Your task to perform on an android device: Show the shopping cart on target.com. Search for duracell triple a on target.com, select the first entry, and add it to the cart. Image 0: 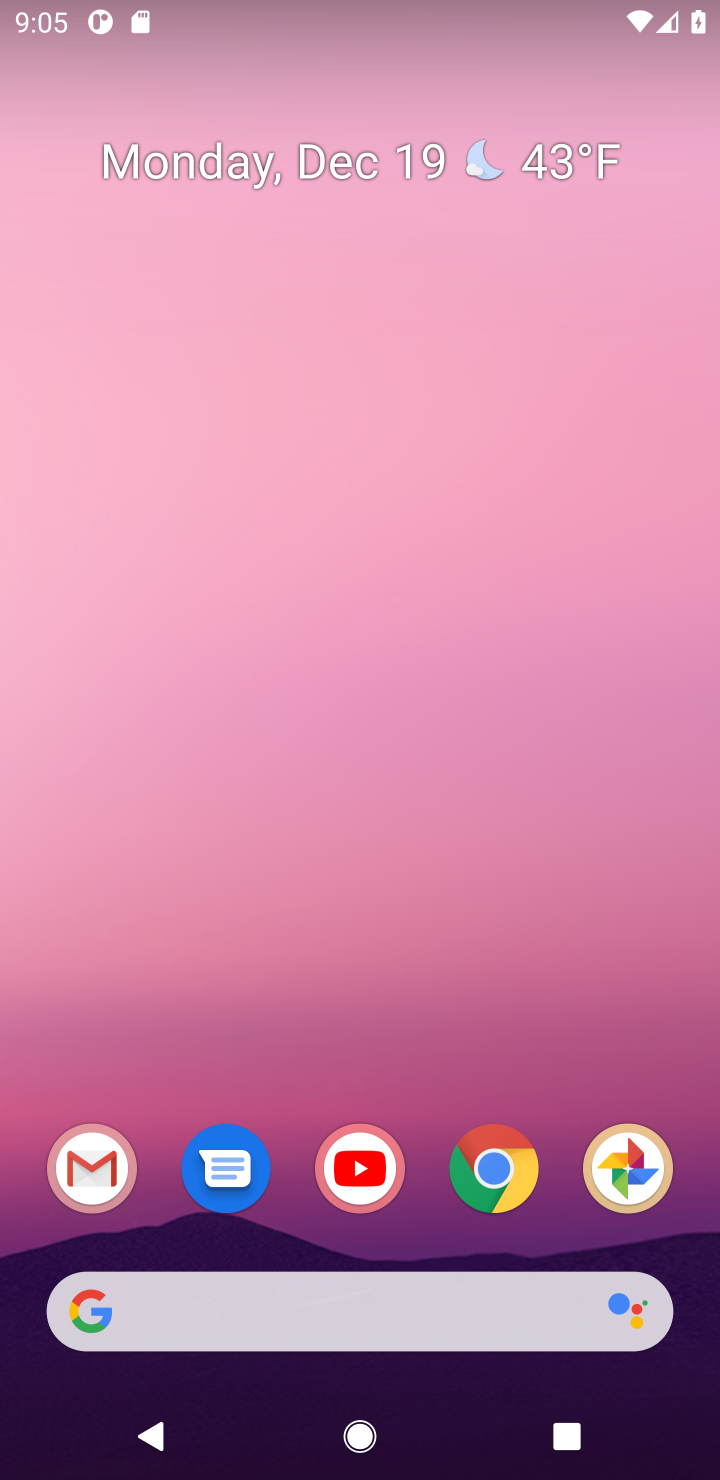
Step 0: click (493, 1164)
Your task to perform on an android device: Show the shopping cart on target.com. Search for duracell triple a on target.com, select the first entry, and add it to the cart. Image 1: 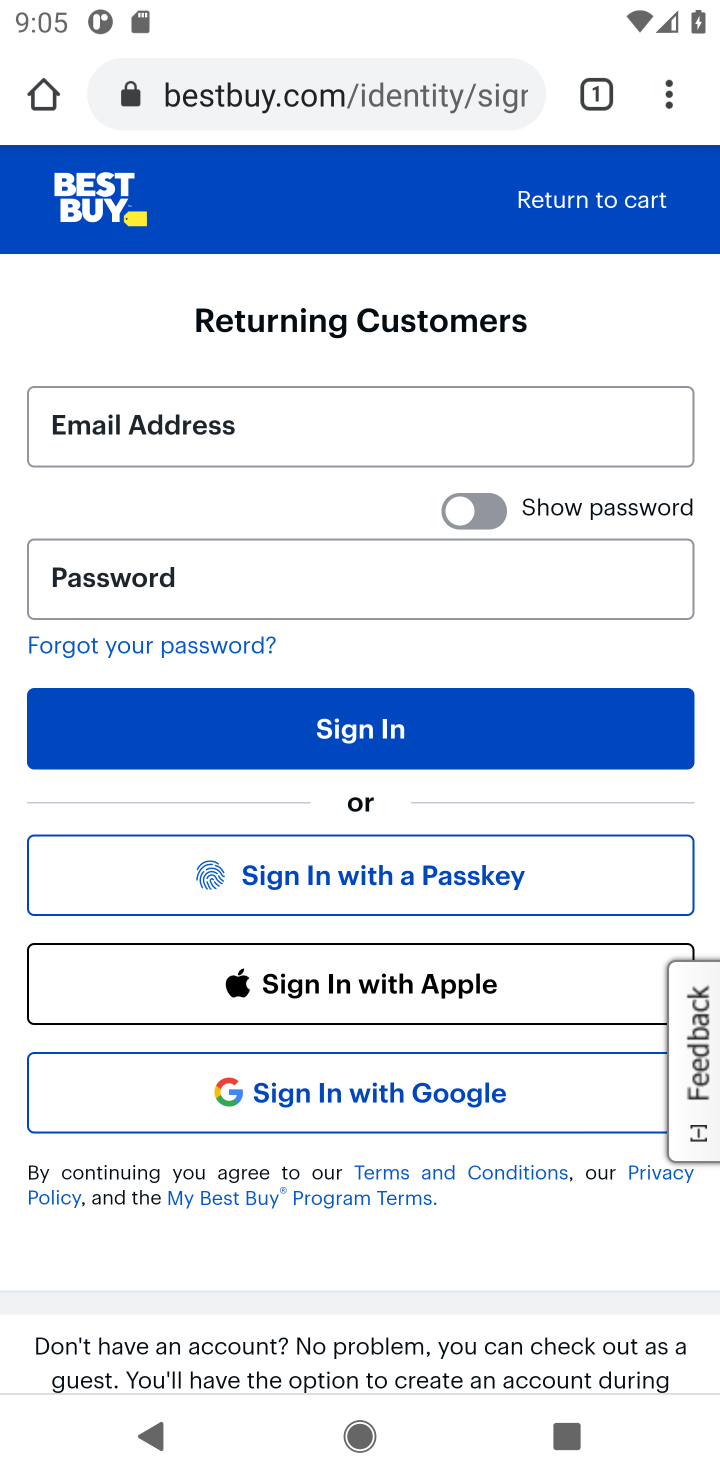
Step 1: click (284, 92)
Your task to perform on an android device: Show the shopping cart on target.com. Search for duracell triple a on target.com, select the first entry, and add it to the cart. Image 2: 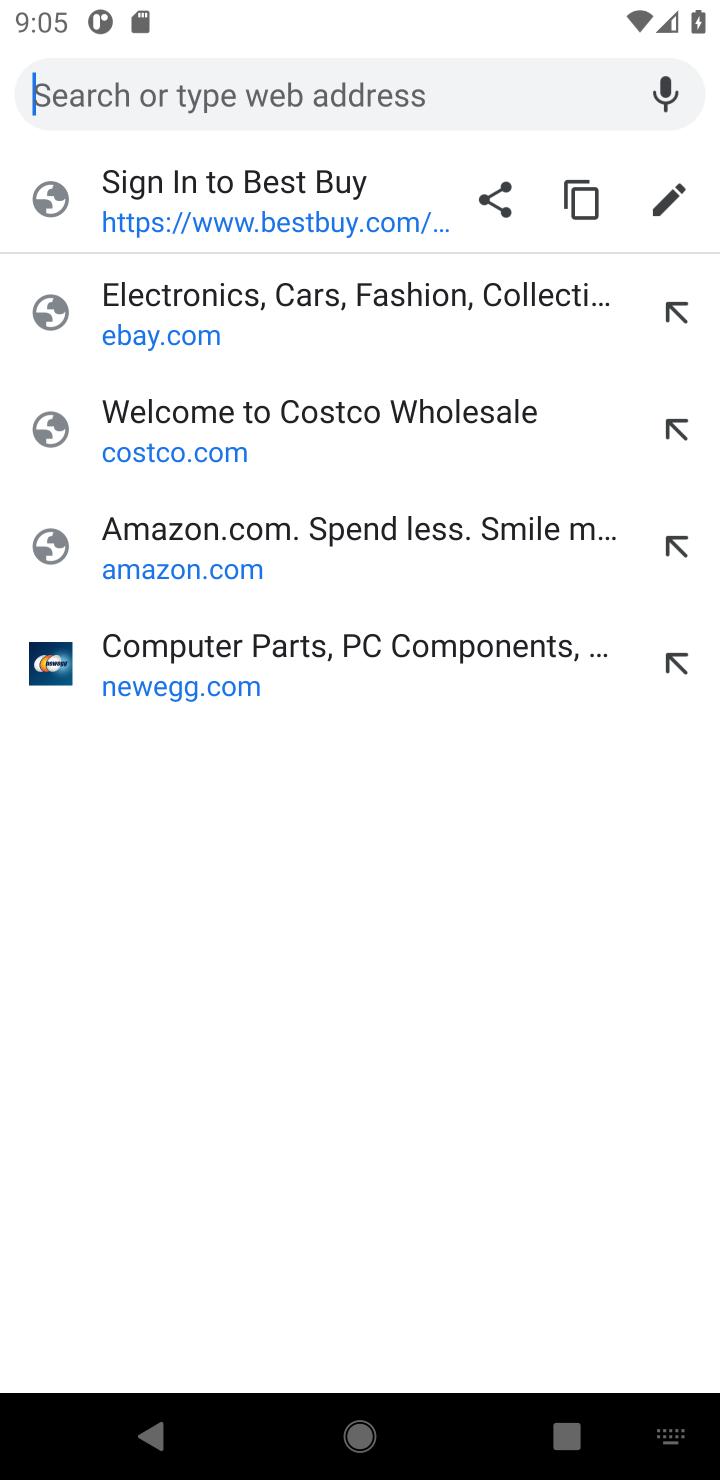
Step 2: type "target.com"
Your task to perform on an android device: Show the shopping cart on target.com. Search for duracell triple a on target.com, select the first entry, and add it to the cart. Image 3: 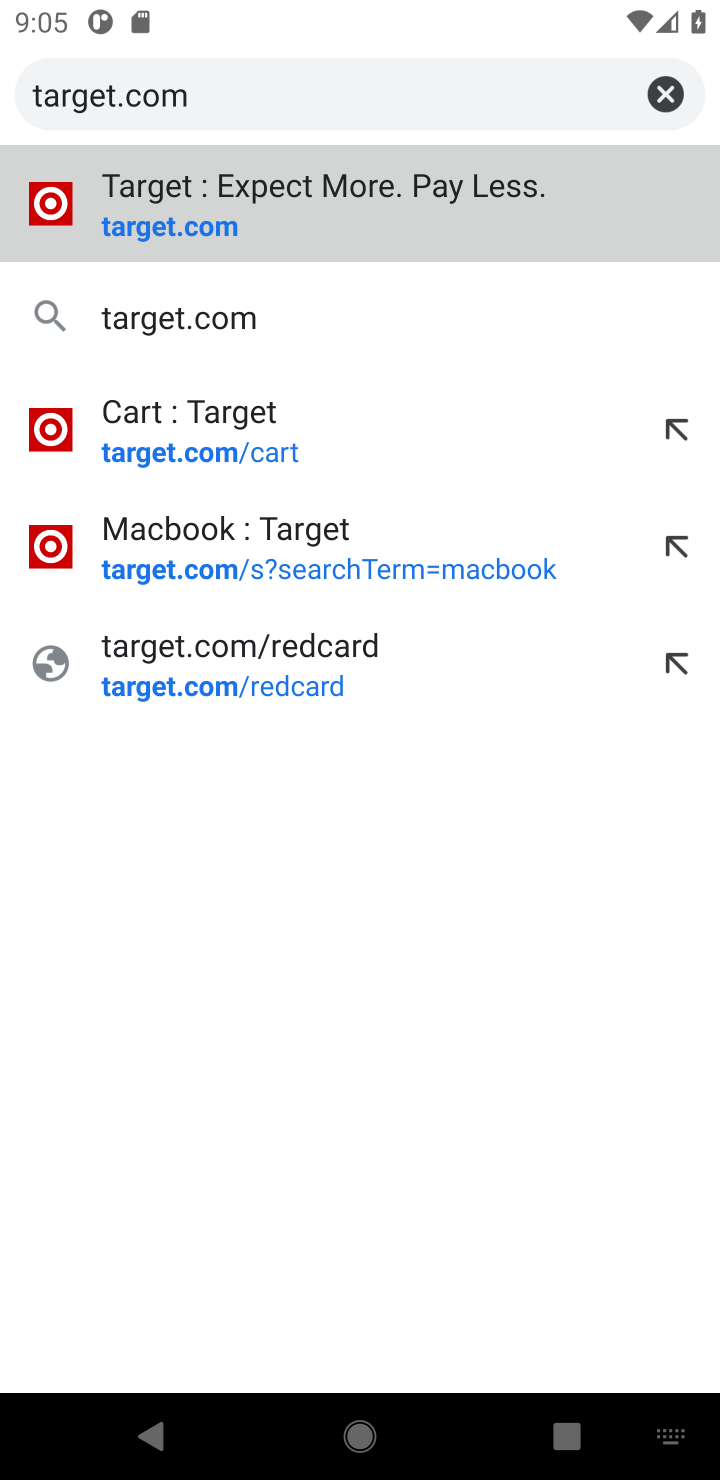
Step 3: click (128, 227)
Your task to perform on an android device: Show the shopping cart on target.com. Search for duracell triple a on target.com, select the first entry, and add it to the cart. Image 4: 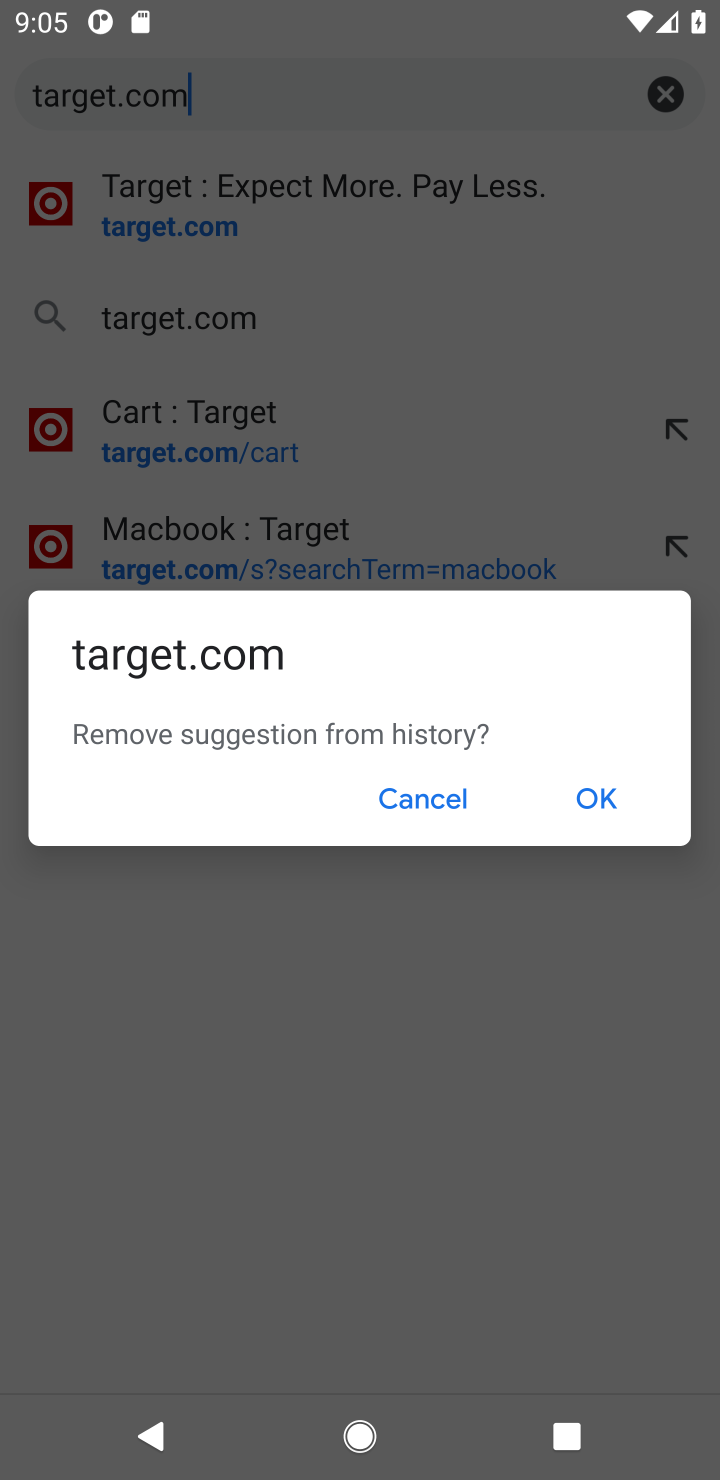
Step 4: click (458, 811)
Your task to perform on an android device: Show the shopping cart on target.com. Search for duracell triple a on target.com, select the first entry, and add it to the cart. Image 5: 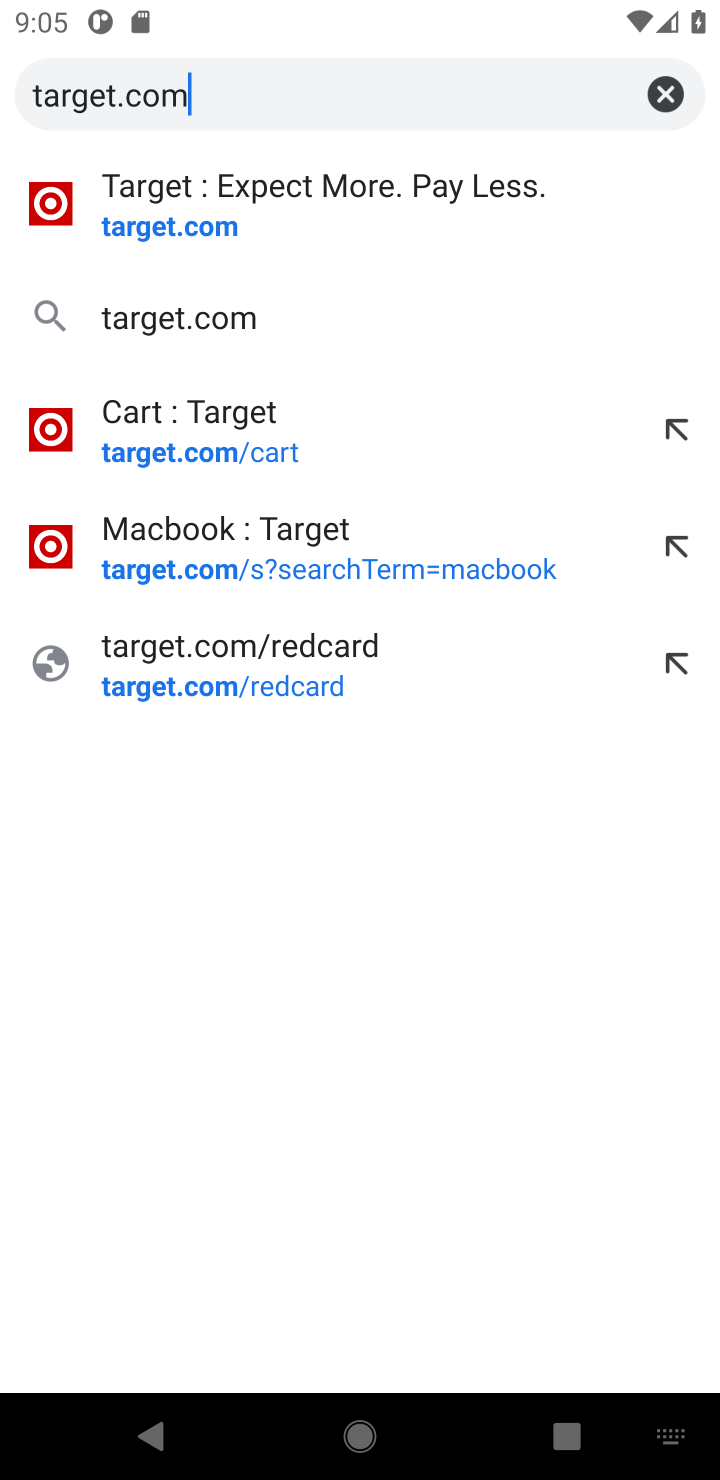
Step 5: click (181, 220)
Your task to perform on an android device: Show the shopping cart on target.com. Search for duracell triple a on target.com, select the first entry, and add it to the cart. Image 6: 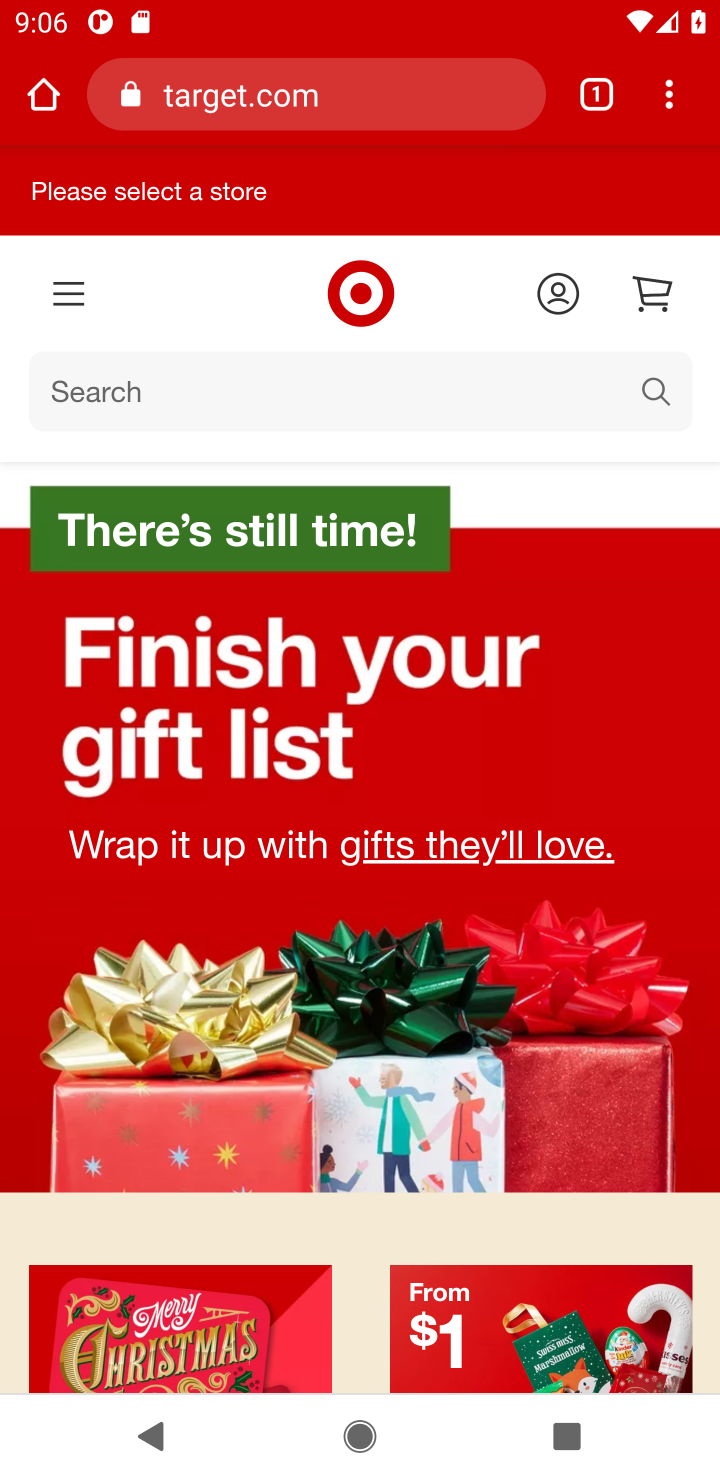
Step 6: click (664, 290)
Your task to perform on an android device: Show the shopping cart on target.com. Search for duracell triple a on target.com, select the first entry, and add it to the cart. Image 7: 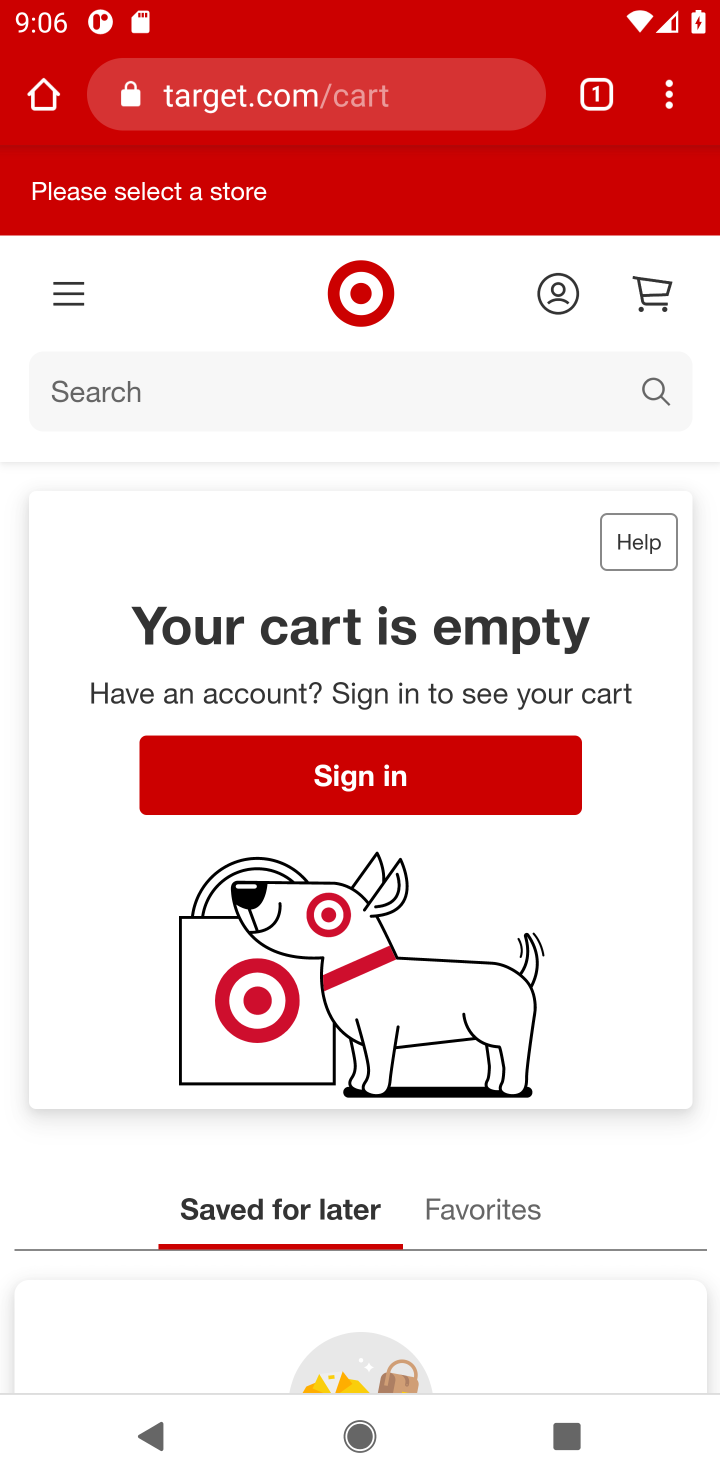
Step 7: click (76, 383)
Your task to perform on an android device: Show the shopping cart on target.com. Search for duracell triple a on target.com, select the first entry, and add it to the cart. Image 8: 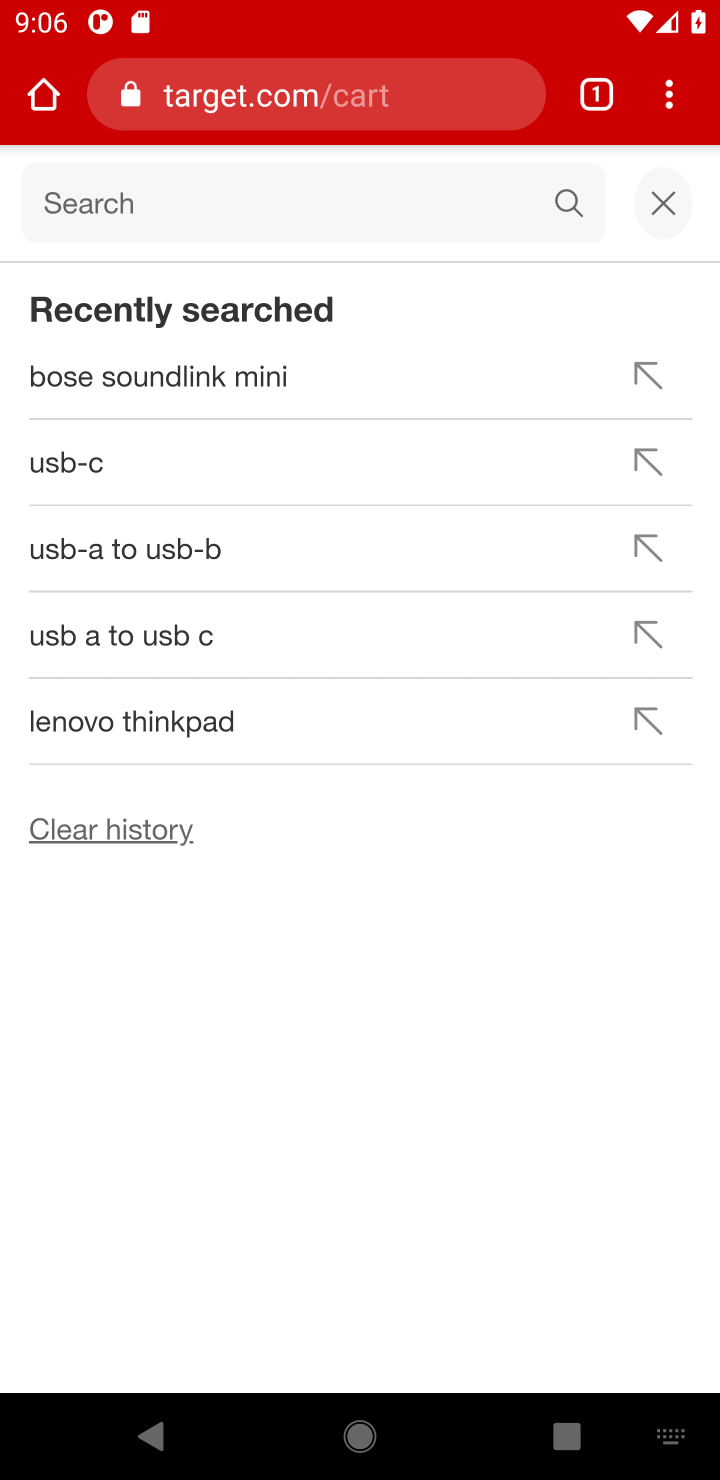
Step 8: type "duracell triple a"
Your task to perform on an android device: Show the shopping cart on target.com. Search for duracell triple a on target.com, select the first entry, and add it to the cart. Image 9: 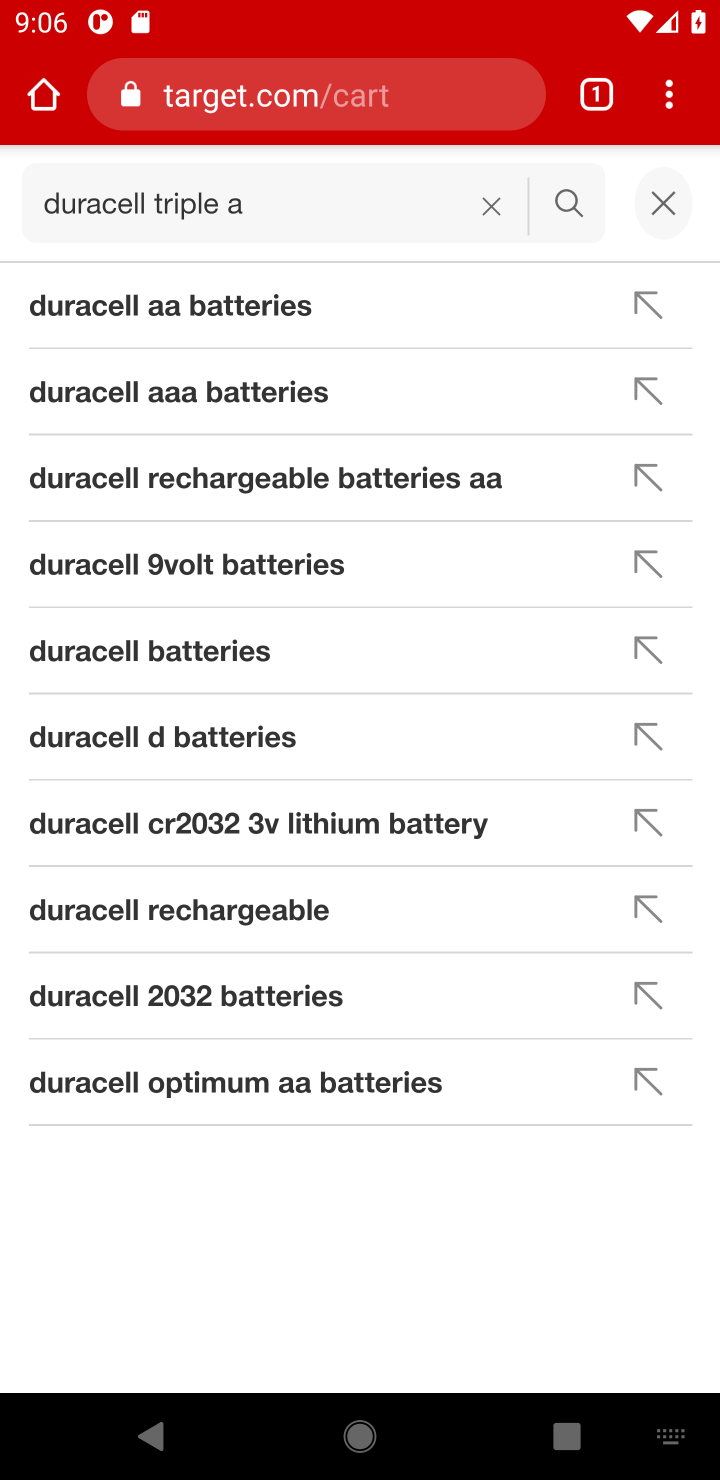
Step 9: click (573, 206)
Your task to perform on an android device: Show the shopping cart on target.com. Search for duracell triple a on target.com, select the first entry, and add it to the cart. Image 10: 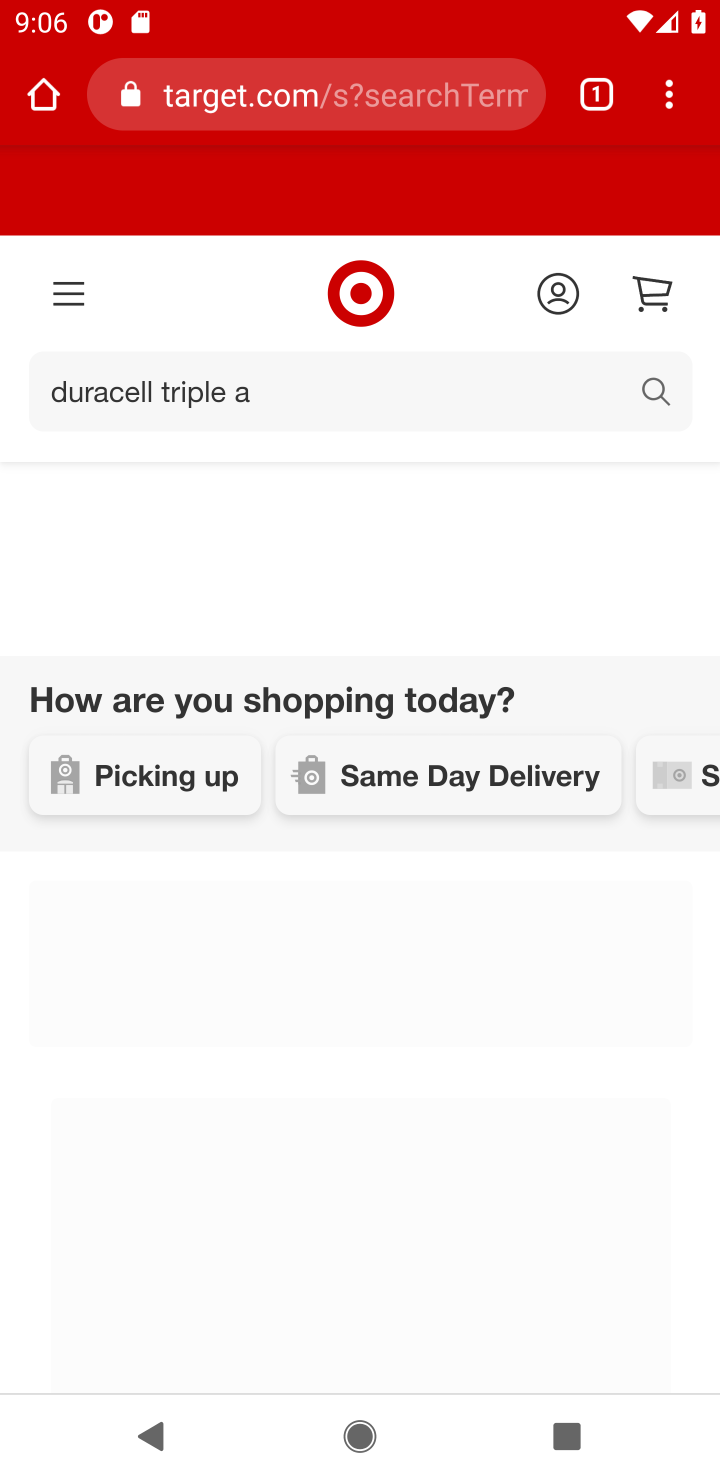
Step 10: drag from (240, 879) to (288, 487)
Your task to perform on an android device: Show the shopping cart on target.com. Search for duracell triple a on target.com, select the first entry, and add it to the cart. Image 11: 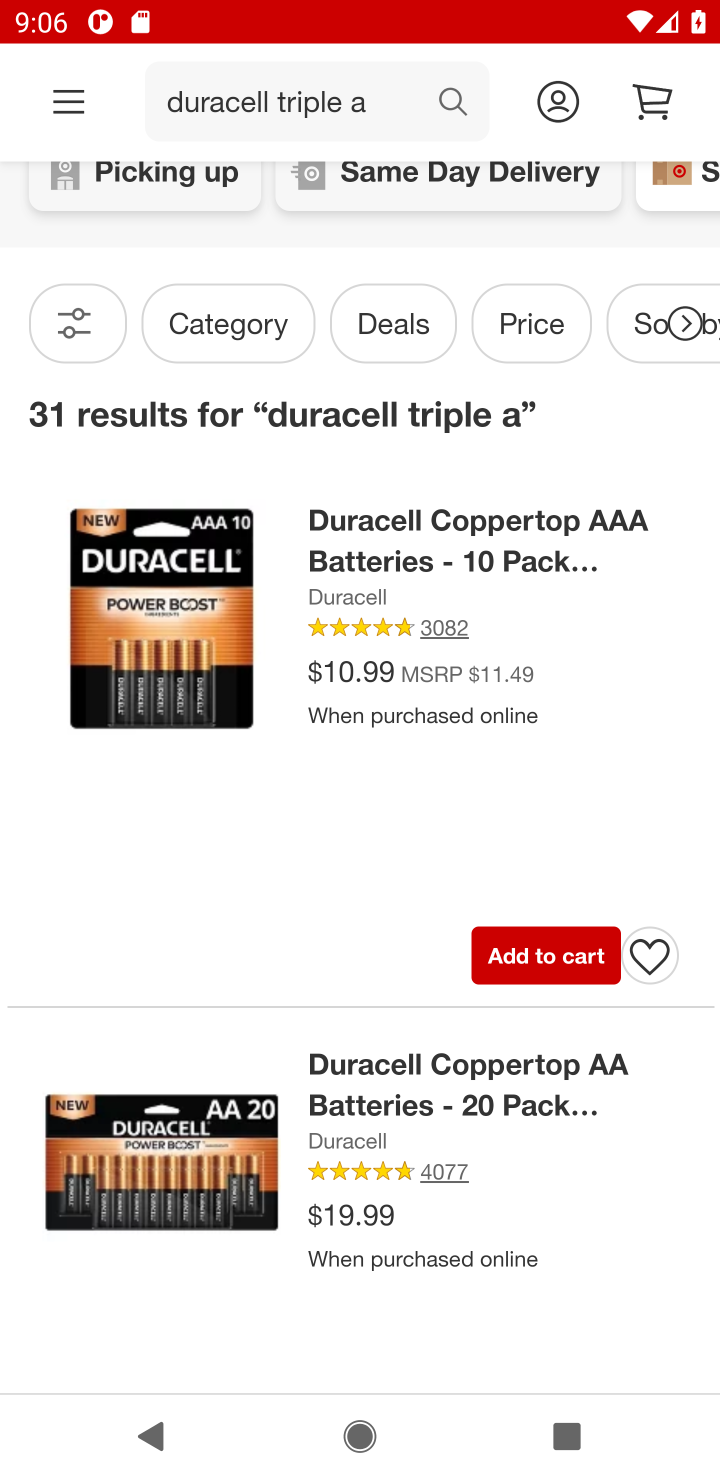
Step 11: click (515, 973)
Your task to perform on an android device: Show the shopping cart on target.com. Search for duracell triple a on target.com, select the first entry, and add it to the cart. Image 12: 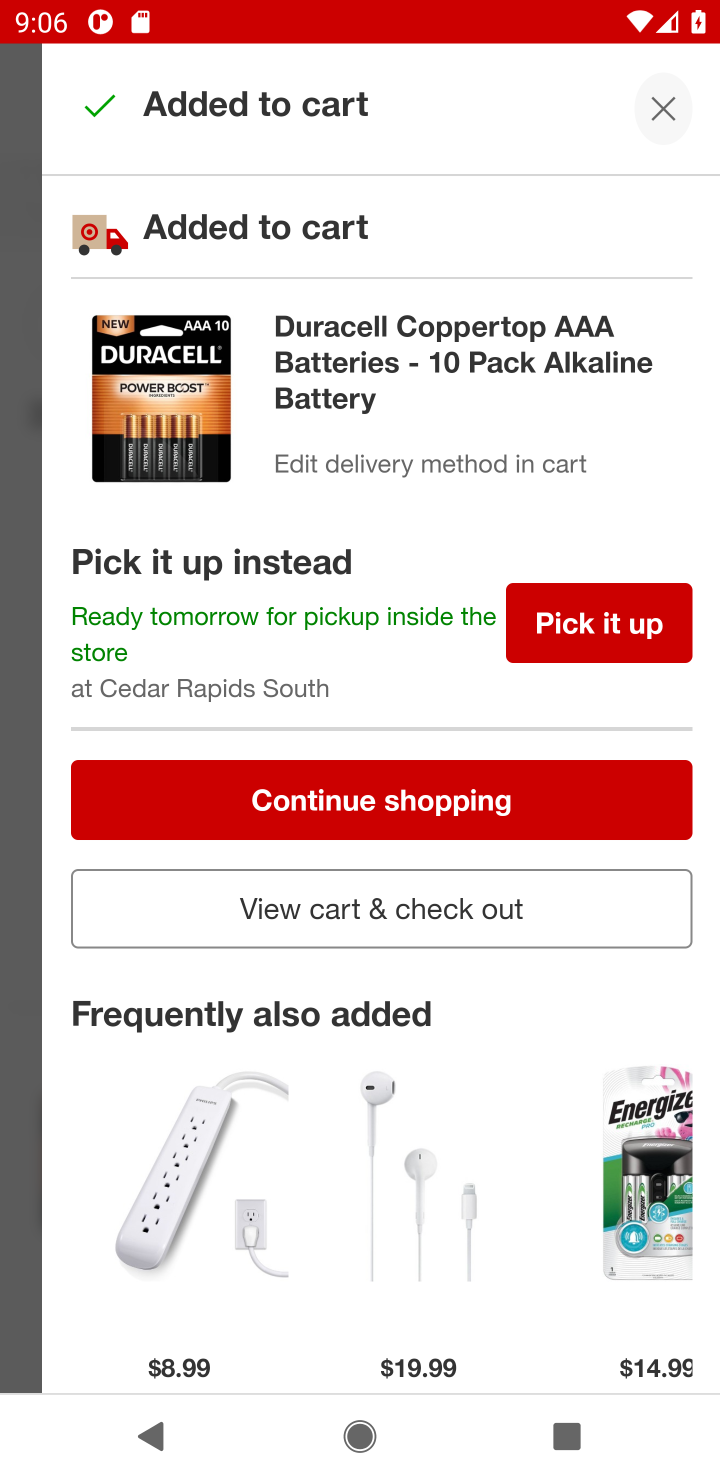
Step 12: task complete